Your task to perform on an android device: visit the assistant section in the google photos Image 0: 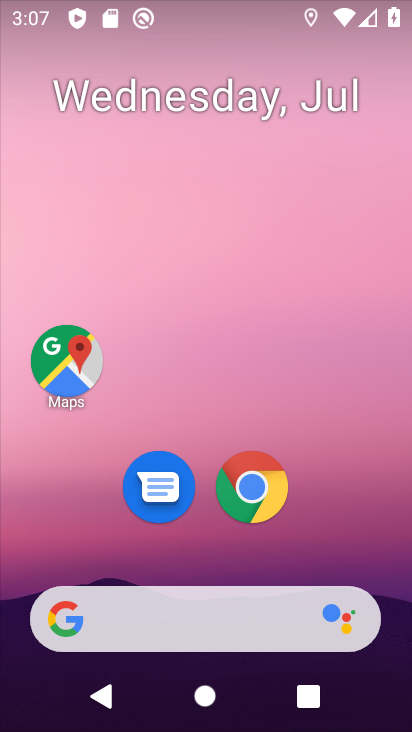
Step 0: drag from (114, 507) to (204, 121)
Your task to perform on an android device: visit the assistant section in the google photos Image 1: 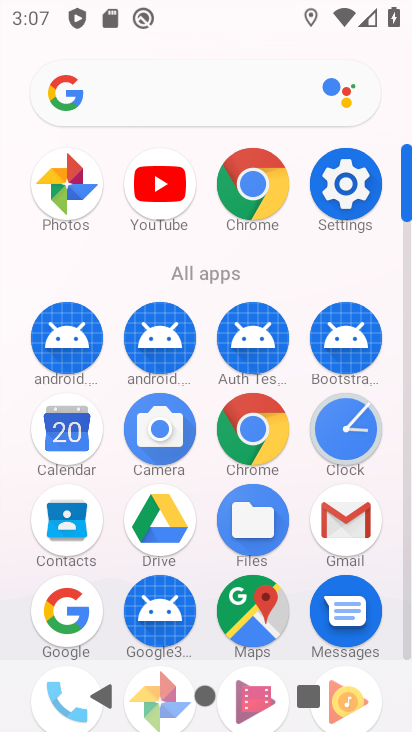
Step 1: drag from (254, 619) to (268, 124)
Your task to perform on an android device: visit the assistant section in the google photos Image 2: 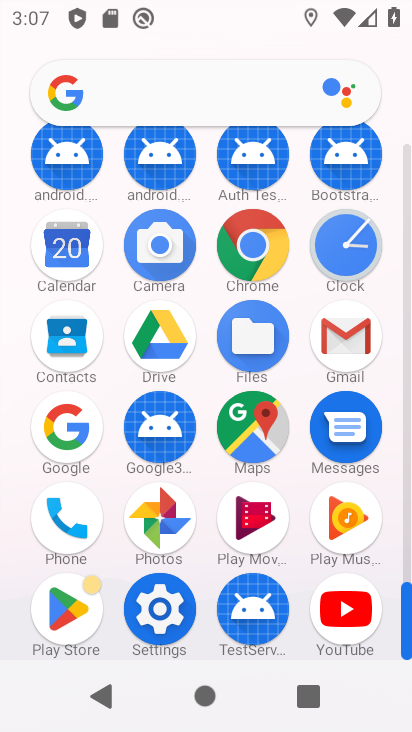
Step 2: click (167, 525)
Your task to perform on an android device: visit the assistant section in the google photos Image 3: 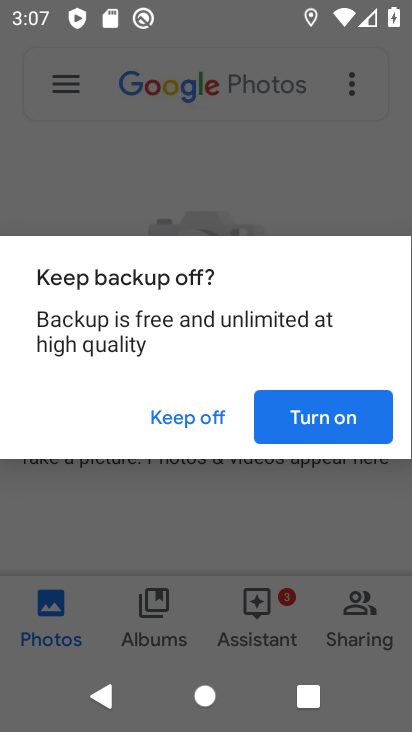
Step 3: click (186, 412)
Your task to perform on an android device: visit the assistant section in the google photos Image 4: 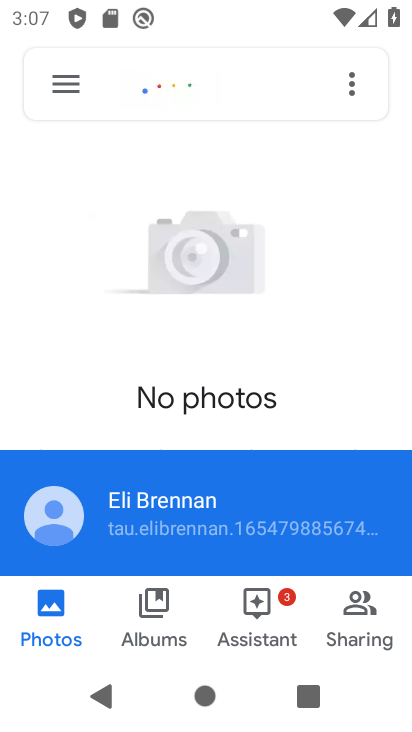
Step 4: click (263, 619)
Your task to perform on an android device: visit the assistant section in the google photos Image 5: 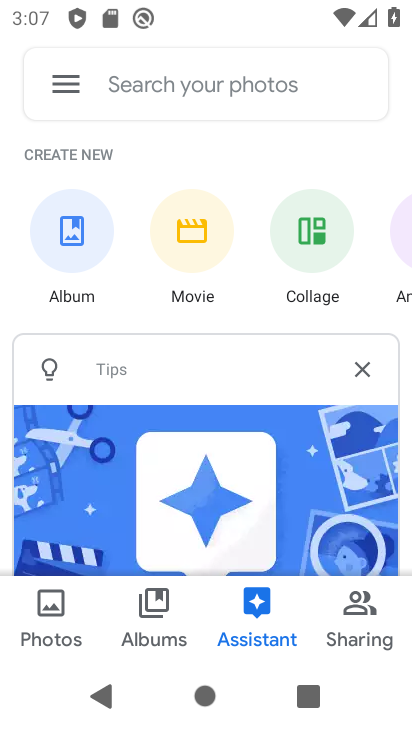
Step 5: task complete